Your task to perform on an android device: show emergency info Image 0: 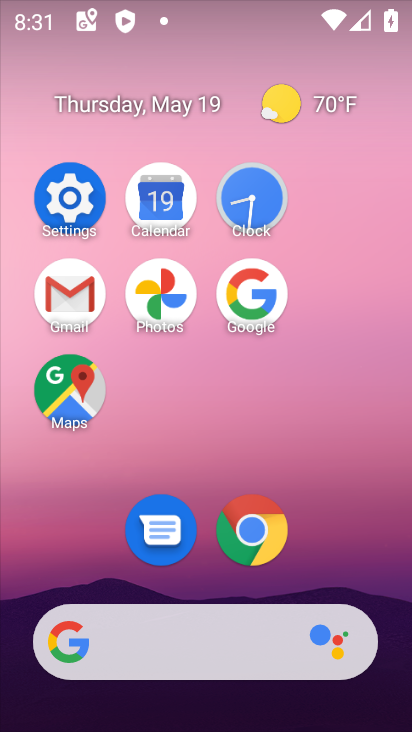
Step 0: click (88, 201)
Your task to perform on an android device: show emergency info Image 1: 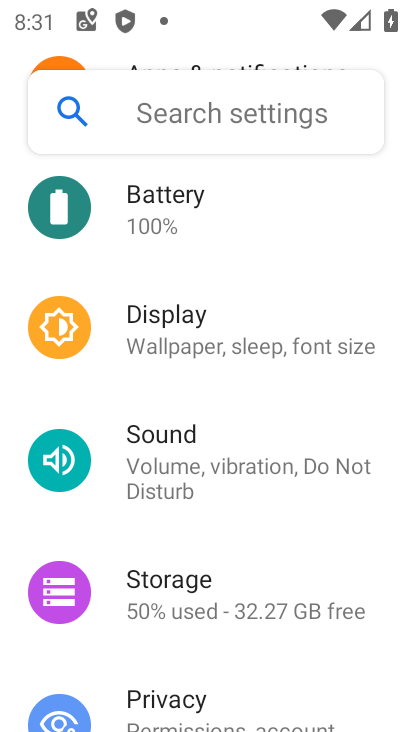
Step 1: drag from (294, 656) to (255, 140)
Your task to perform on an android device: show emergency info Image 2: 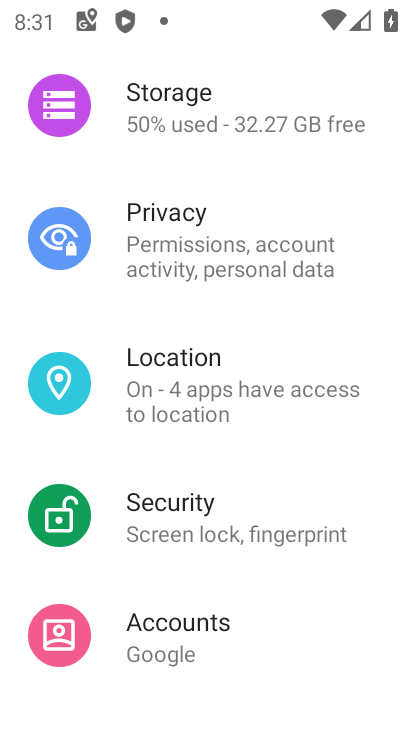
Step 2: drag from (295, 683) to (306, 220)
Your task to perform on an android device: show emergency info Image 3: 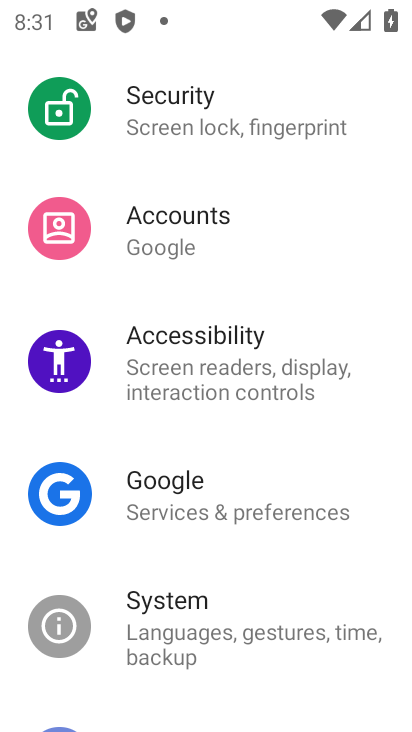
Step 3: drag from (322, 591) to (335, 199)
Your task to perform on an android device: show emergency info Image 4: 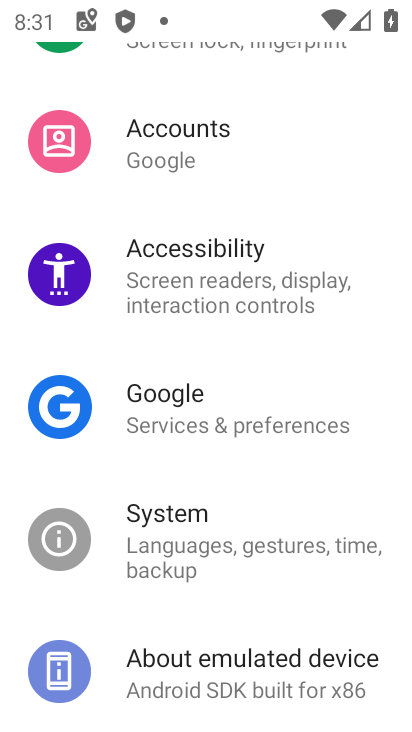
Step 4: click (270, 651)
Your task to perform on an android device: show emergency info Image 5: 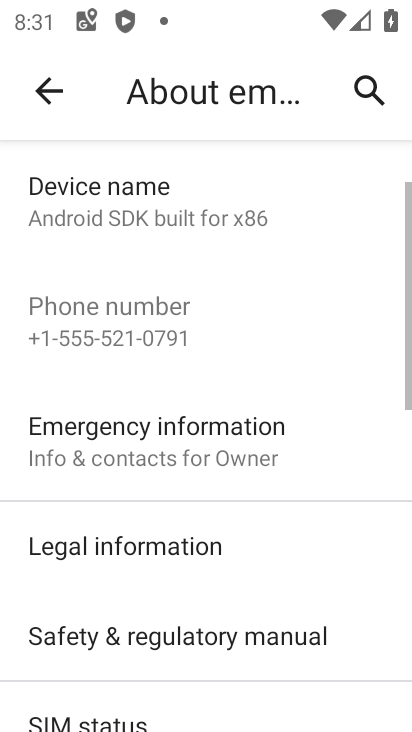
Step 5: click (206, 453)
Your task to perform on an android device: show emergency info Image 6: 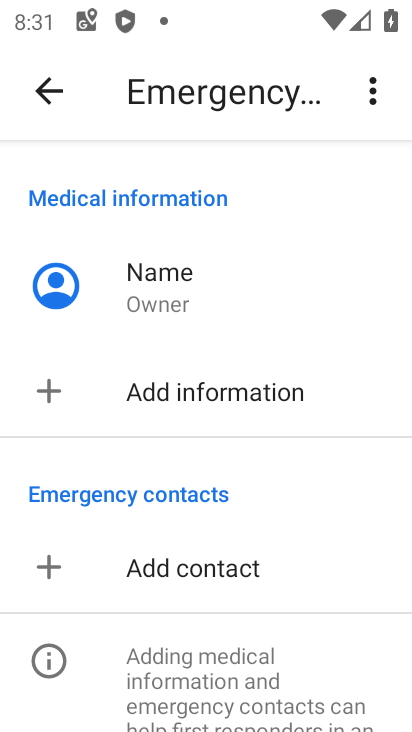
Step 6: task complete